Your task to perform on an android device: Open display settings Image 0: 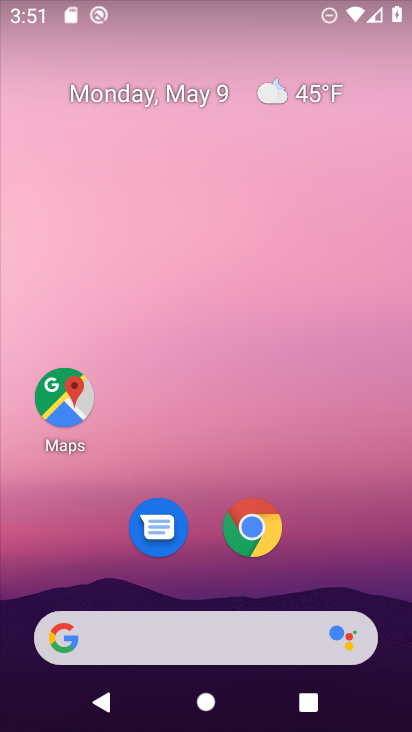
Step 0: drag from (394, 592) to (220, 114)
Your task to perform on an android device: Open display settings Image 1: 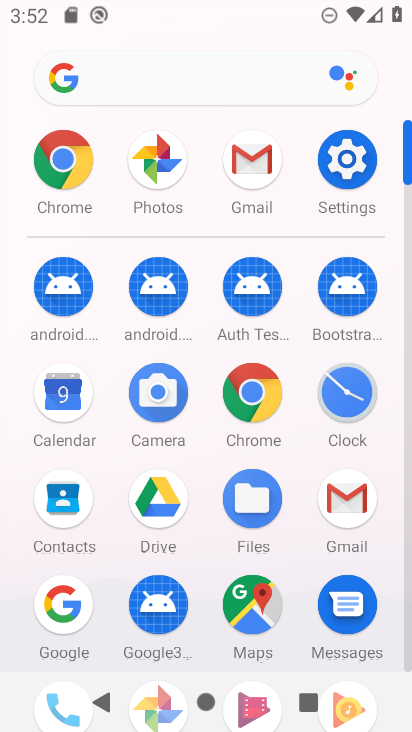
Step 1: click (410, 614)
Your task to perform on an android device: Open display settings Image 2: 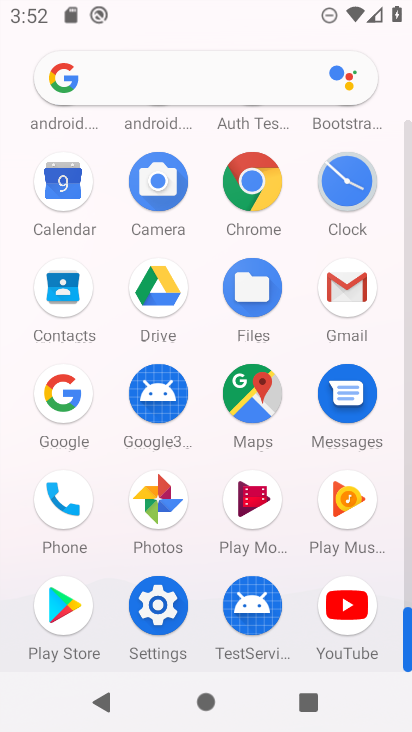
Step 2: click (155, 623)
Your task to perform on an android device: Open display settings Image 3: 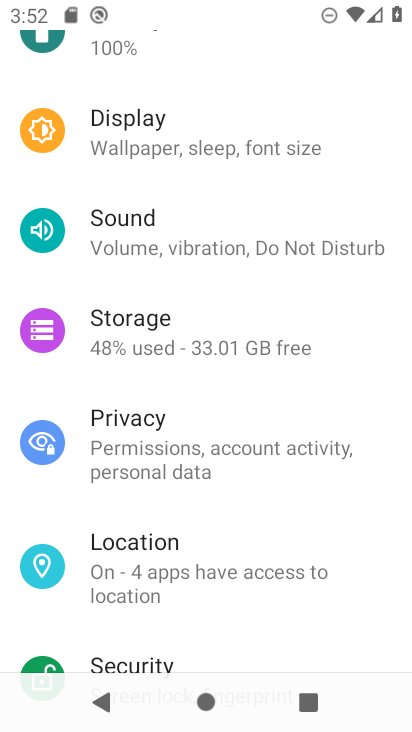
Step 3: click (264, 149)
Your task to perform on an android device: Open display settings Image 4: 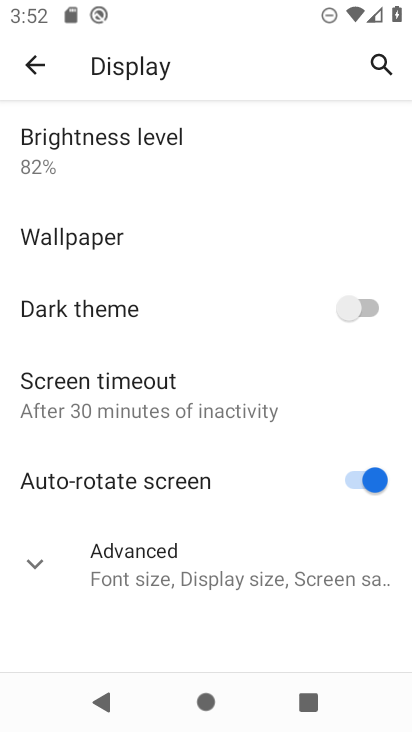
Step 4: task complete